Your task to perform on an android device: Open Google Chrome and click the shortcut for Amazon.com Image 0: 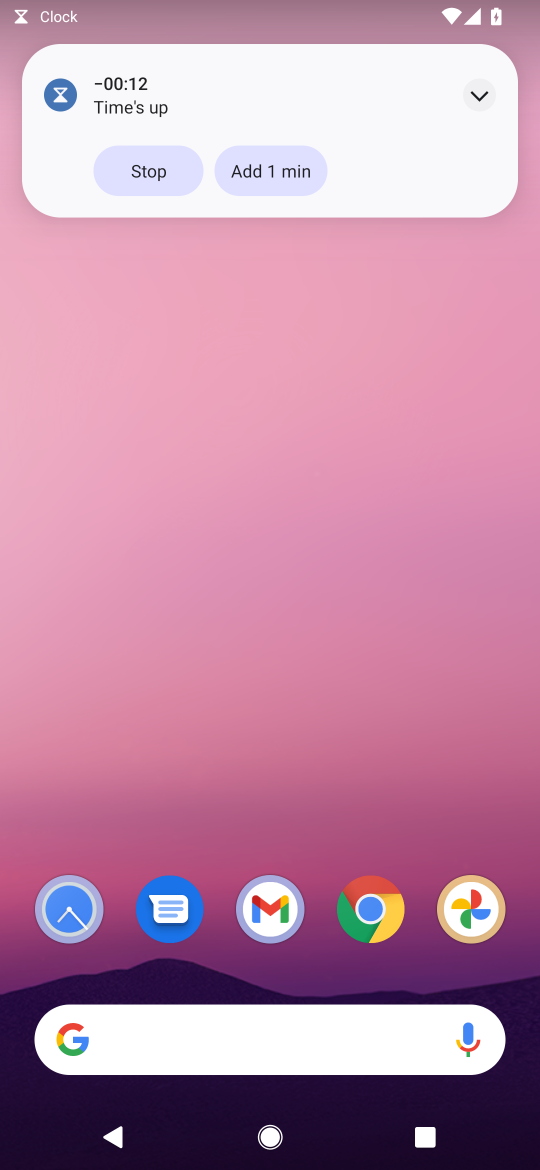
Step 0: drag from (337, 786) to (337, 40)
Your task to perform on an android device: Open Google Chrome and click the shortcut for Amazon.com Image 1: 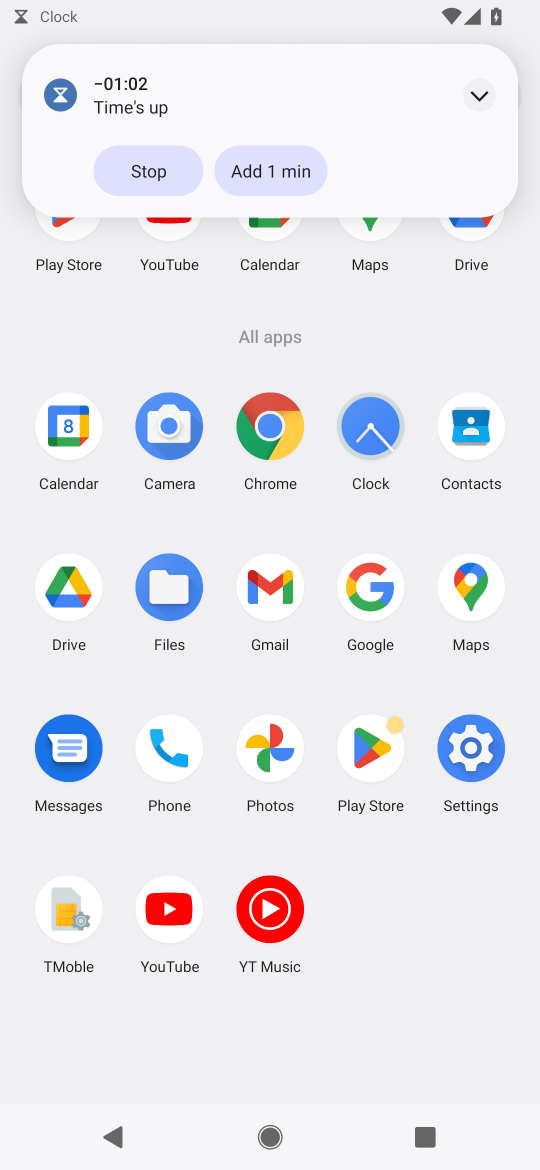
Step 1: click (251, 440)
Your task to perform on an android device: Open Google Chrome and click the shortcut for Amazon.com Image 2: 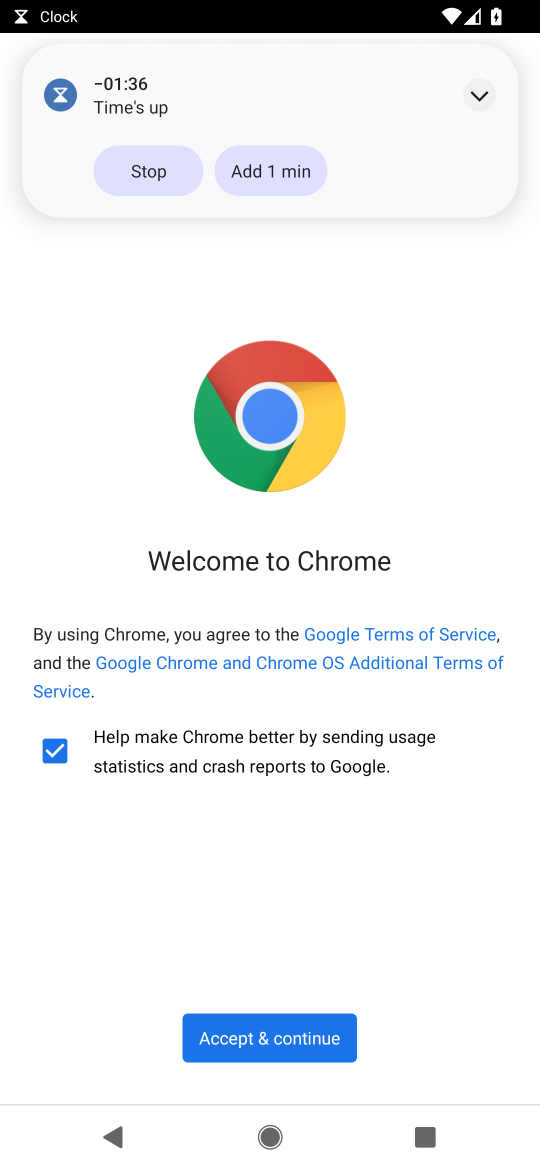
Step 2: click (314, 1040)
Your task to perform on an android device: Open Google Chrome and click the shortcut for Amazon.com Image 3: 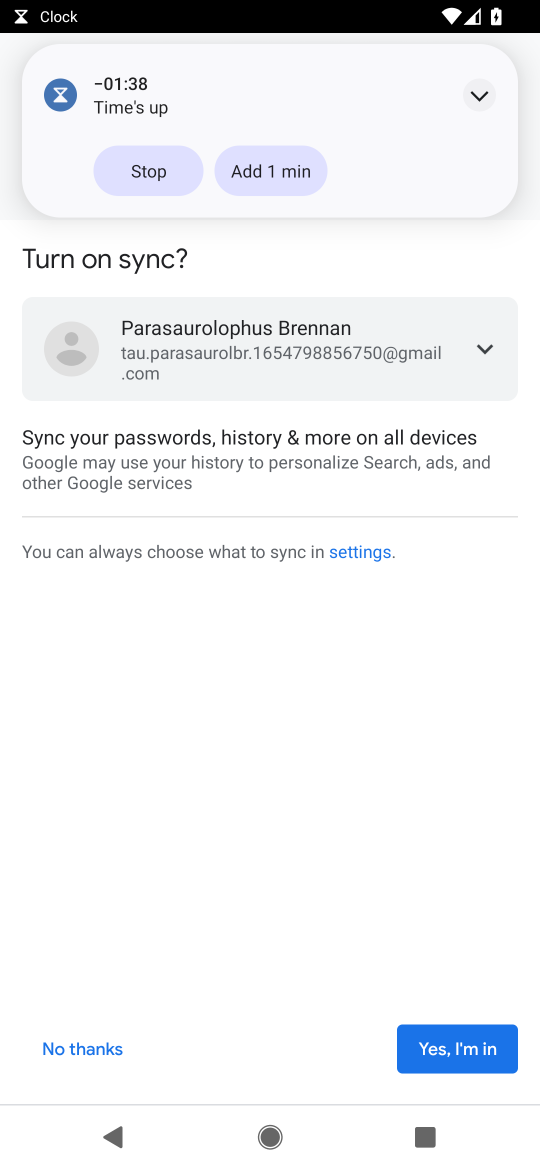
Step 3: click (292, 1025)
Your task to perform on an android device: Open Google Chrome and click the shortcut for Amazon.com Image 4: 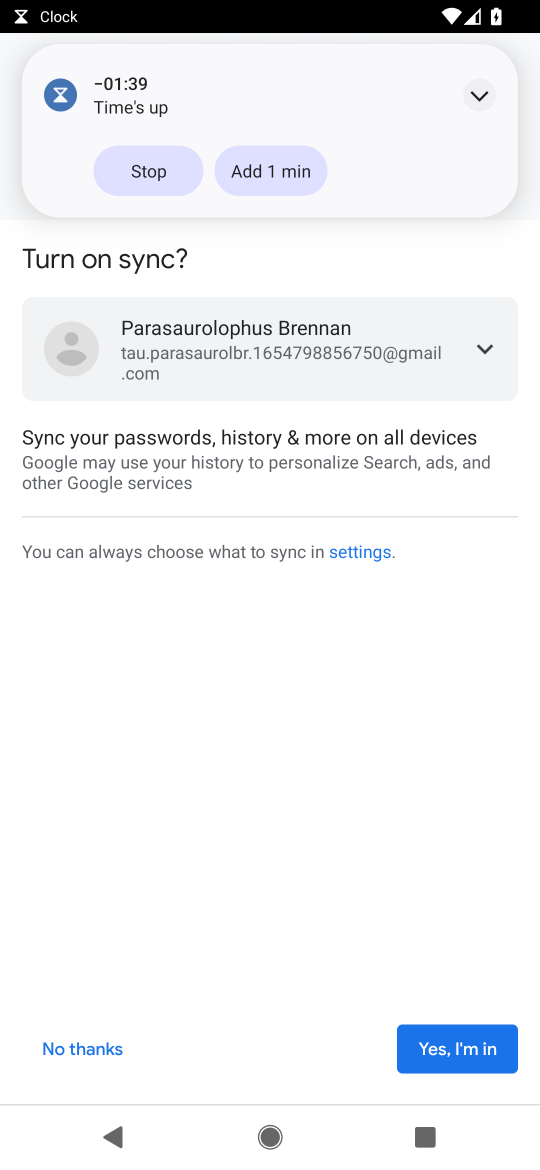
Step 4: click (466, 1046)
Your task to perform on an android device: Open Google Chrome and click the shortcut for Amazon.com Image 5: 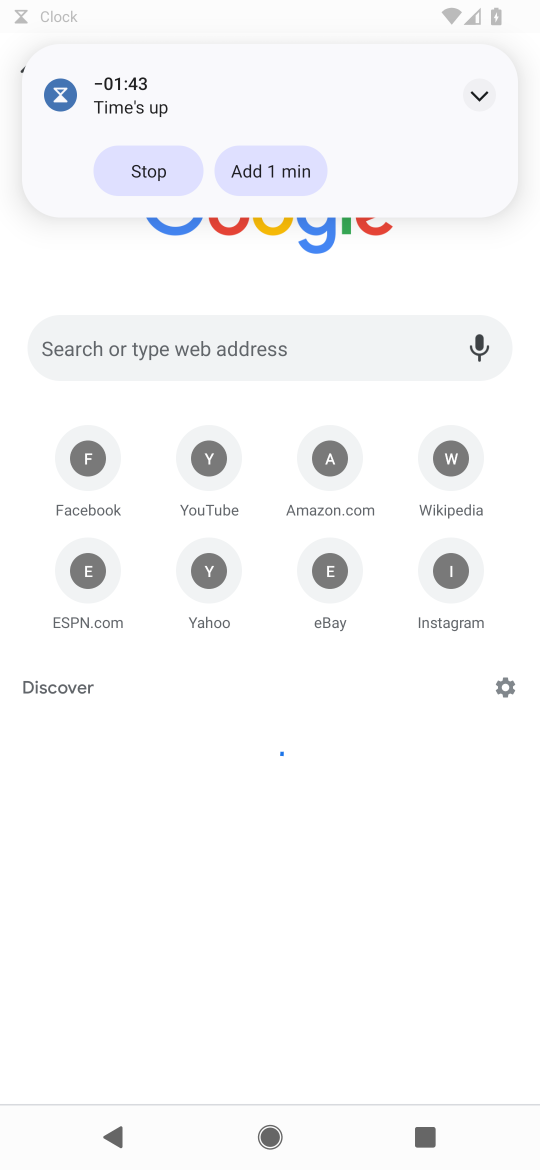
Step 5: click (473, 1036)
Your task to perform on an android device: Open Google Chrome and click the shortcut for Amazon.com Image 6: 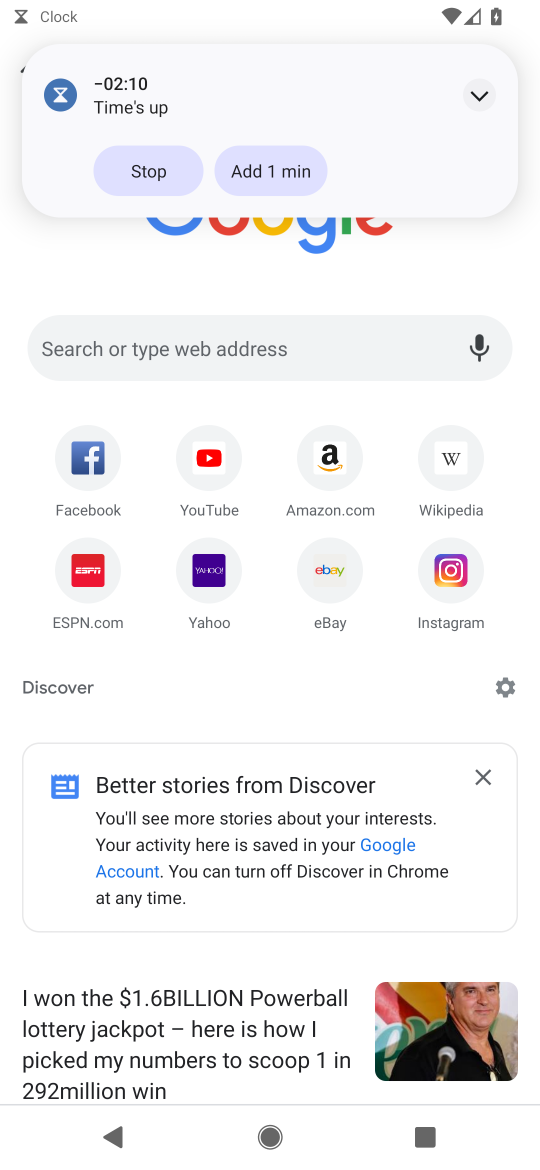
Step 6: click (327, 471)
Your task to perform on an android device: Open Google Chrome and click the shortcut for Amazon.com Image 7: 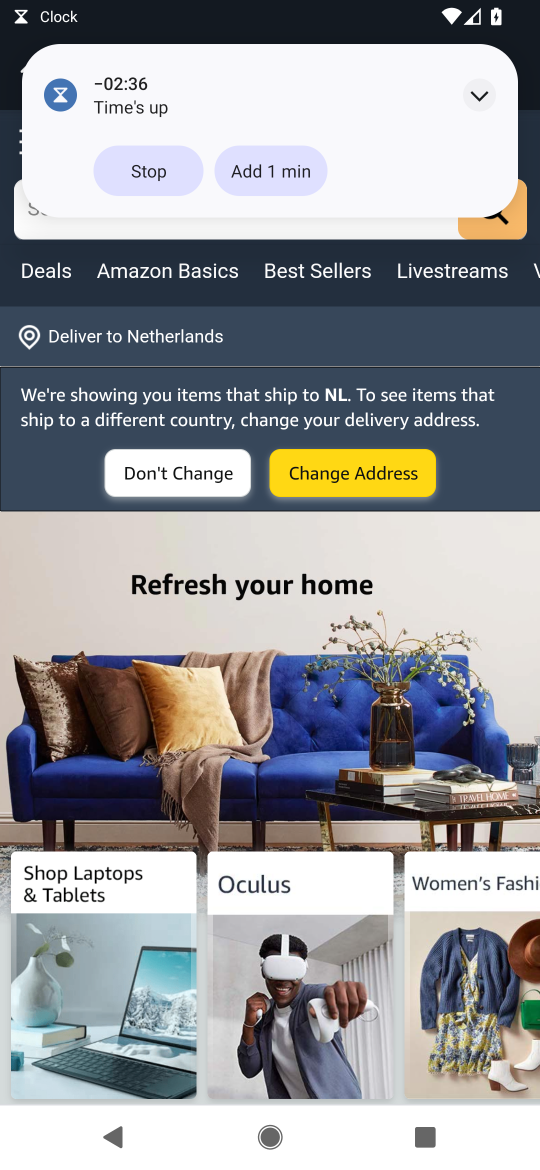
Step 7: task complete